Your task to perform on an android device: turn on data saver in the chrome app Image 0: 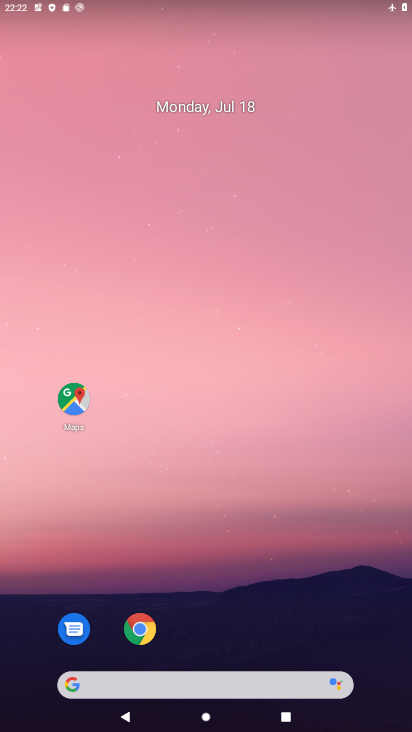
Step 0: drag from (338, 608) to (319, 137)
Your task to perform on an android device: turn on data saver in the chrome app Image 1: 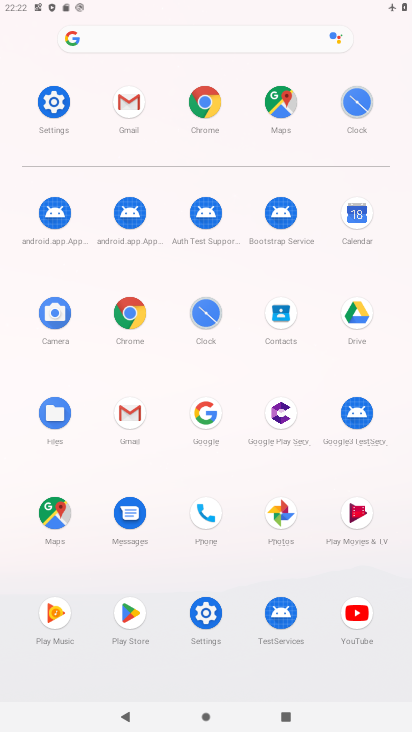
Step 1: click (208, 105)
Your task to perform on an android device: turn on data saver in the chrome app Image 2: 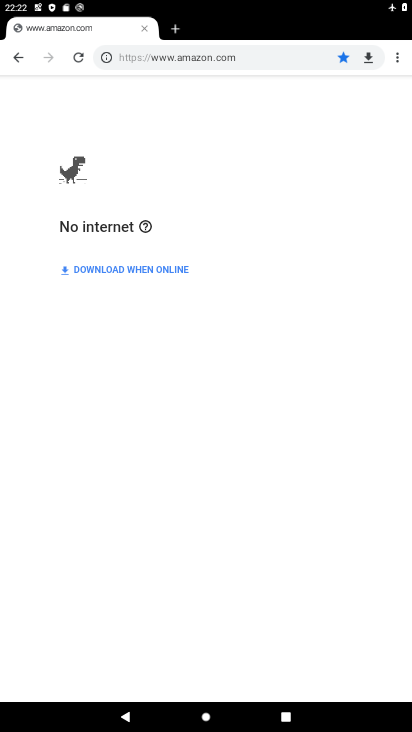
Step 2: drag from (401, 52) to (267, 391)
Your task to perform on an android device: turn on data saver in the chrome app Image 3: 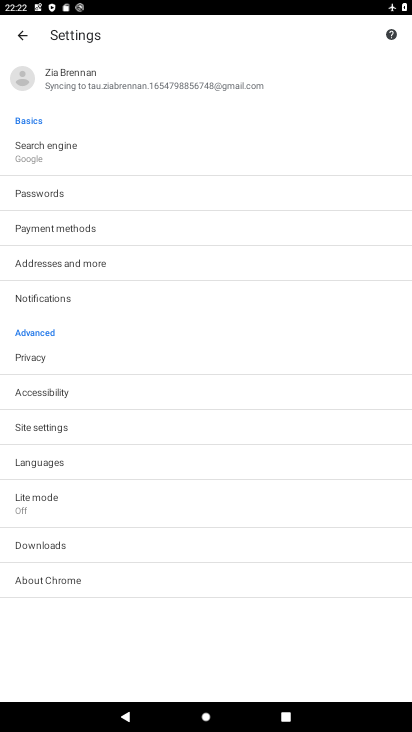
Step 3: click (31, 505)
Your task to perform on an android device: turn on data saver in the chrome app Image 4: 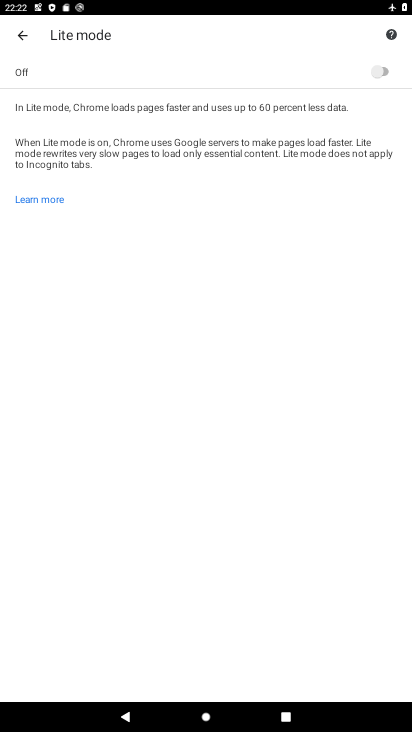
Step 4: task complete